Your task to perform on an android device: turn off location Image 0: 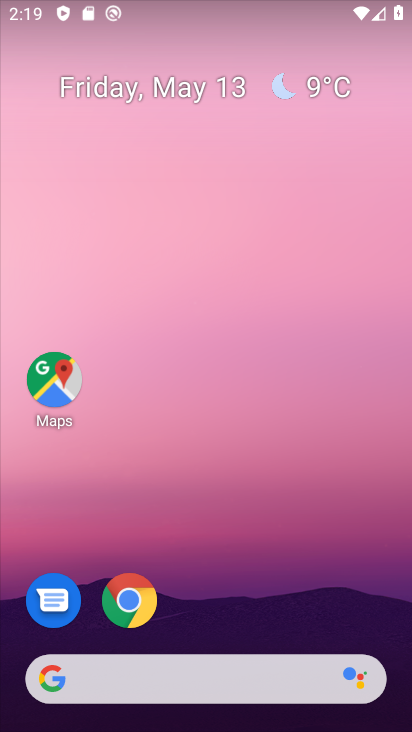
Step 0: drag from (217, 616) to (261, 122)
Your task to perform on an android device: turn off location Image 1: 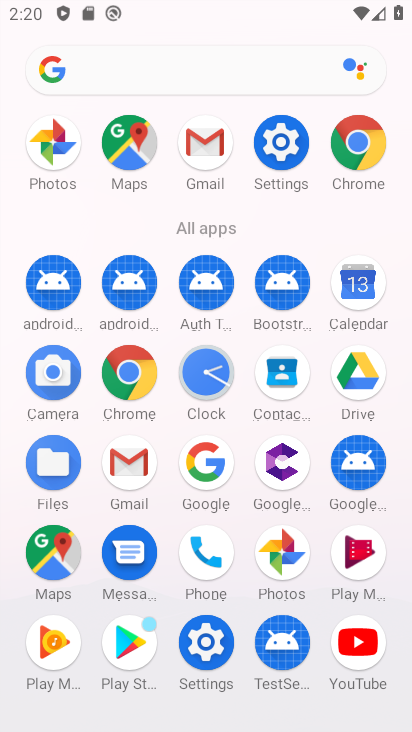
Step 1: click (272, 149)
Your task to perform on an android device: turn off location Image 2: 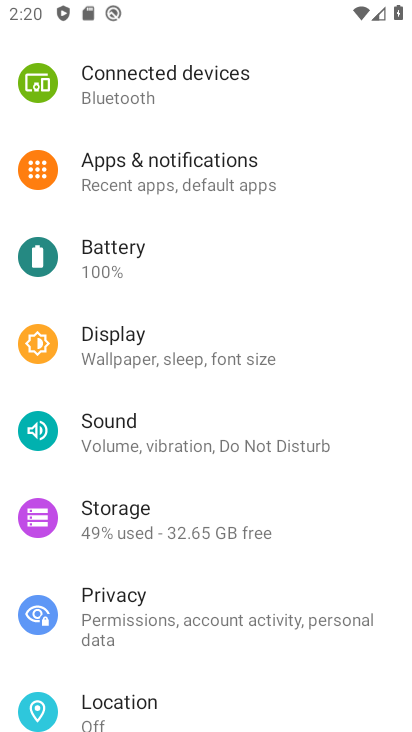
Step 2: click (201, 703)
Your task to perform on an android device: turn off location Image 3: 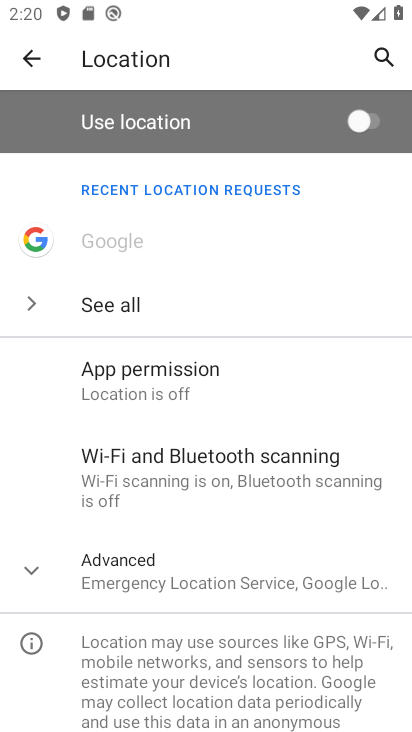
Step 3: task complete